Your task to perform on an android device: Open Android settings Image 0: 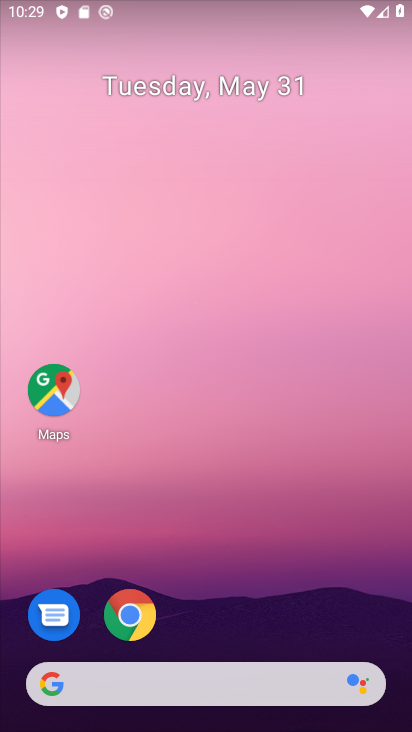
Step 0: task complete